Your task to perform on an android device: What's on my calendar tomorrow? Image 0: 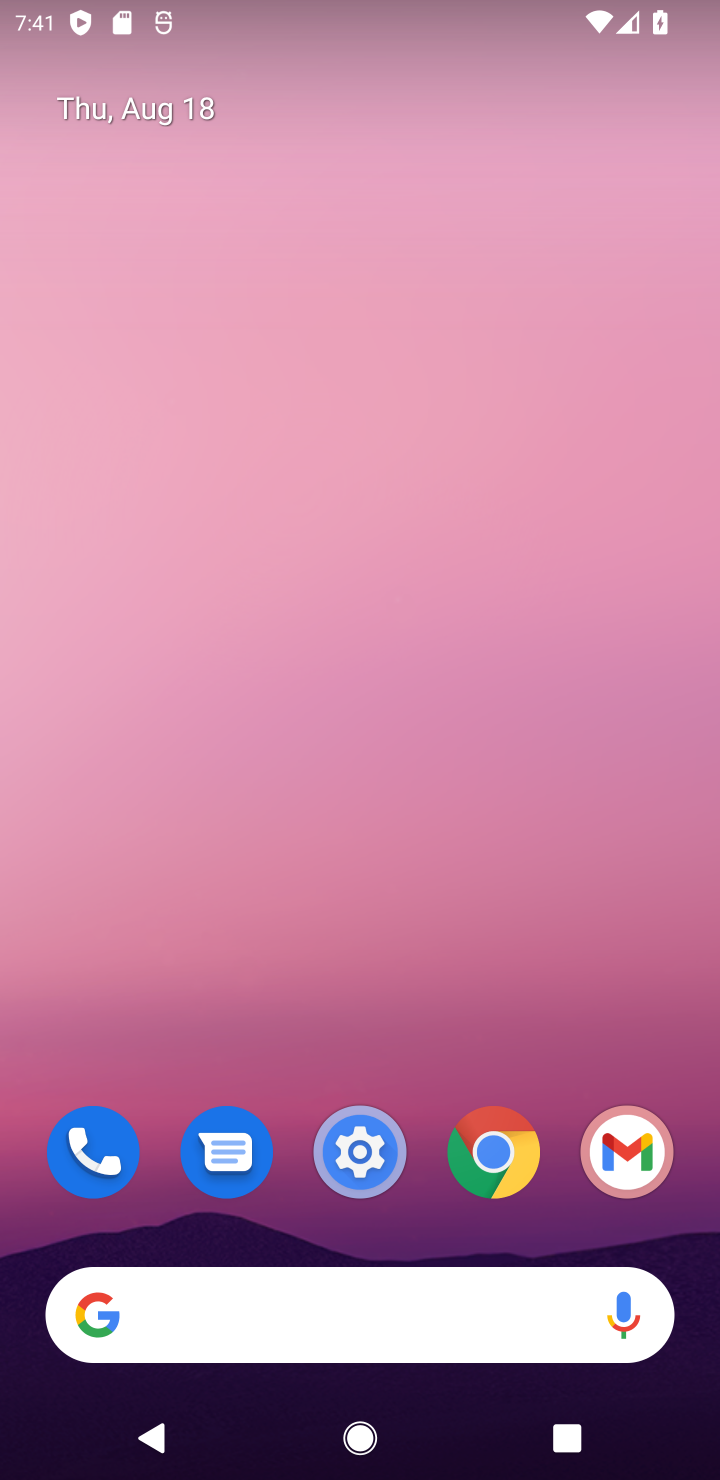
Step 0: press home button
Your task to perform on an android device: What's on my calendar tomorrow? Image 1: 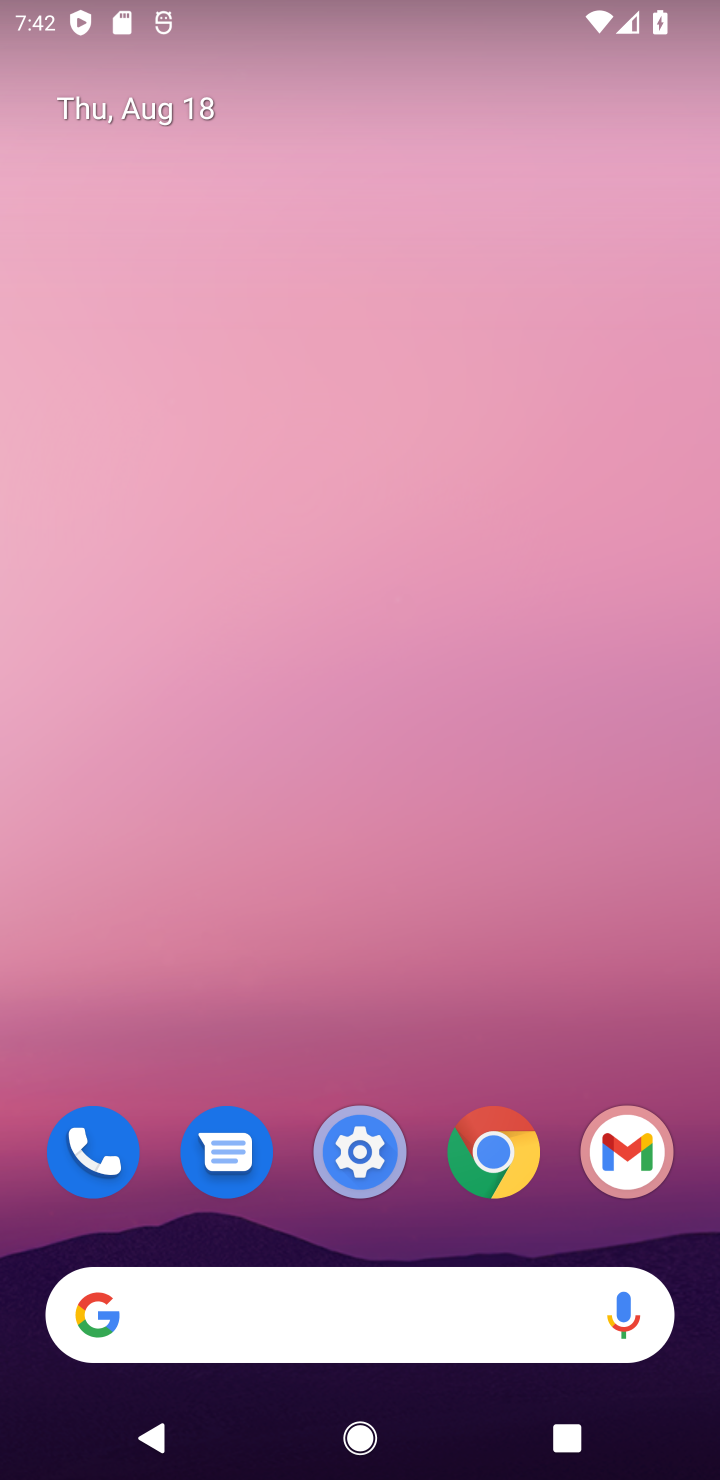
Step 1: drag from (407, 1185) to (584, 81)
Your task to perform on an android device: What's on my calendar tomorrow? Image 2: 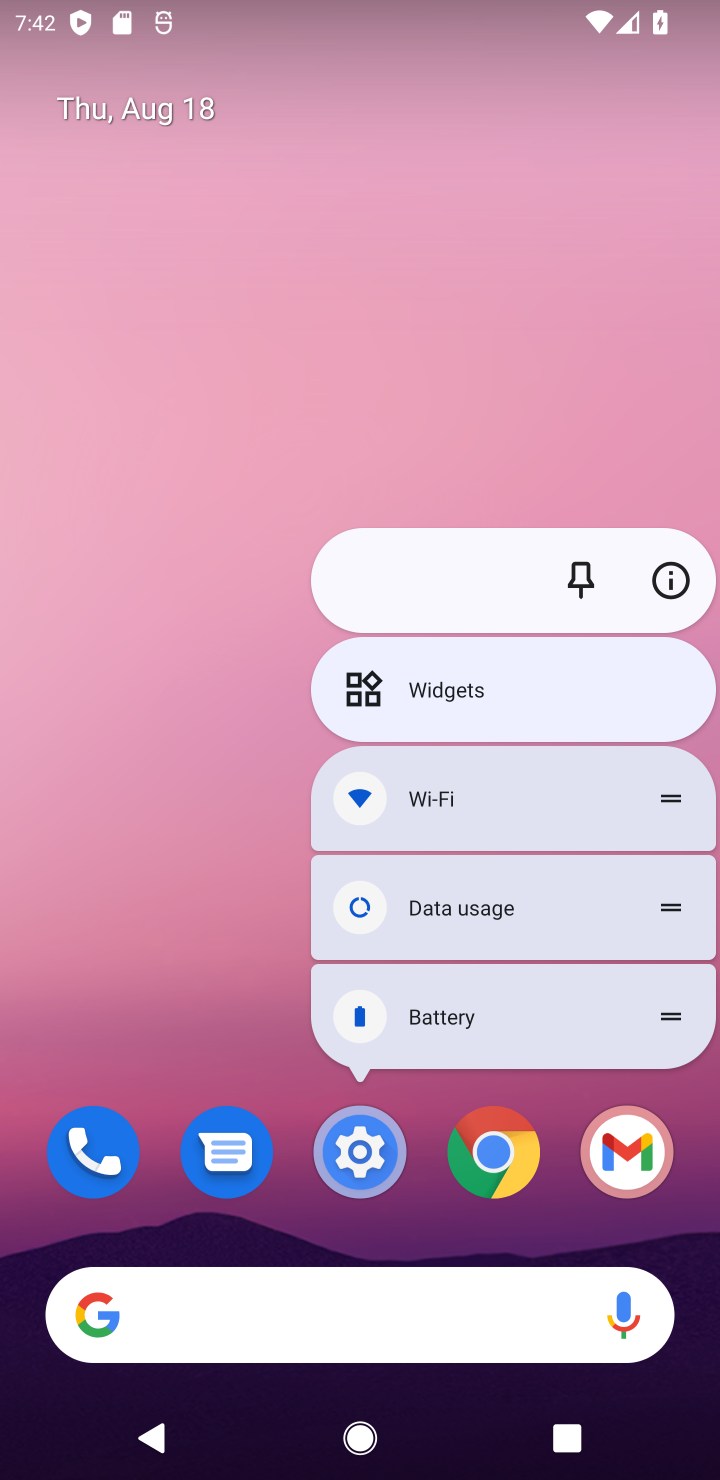
Step 2: click (423, 1212)
Your task to perform on an android device: What's on my calendar tomorrow? Image 3: 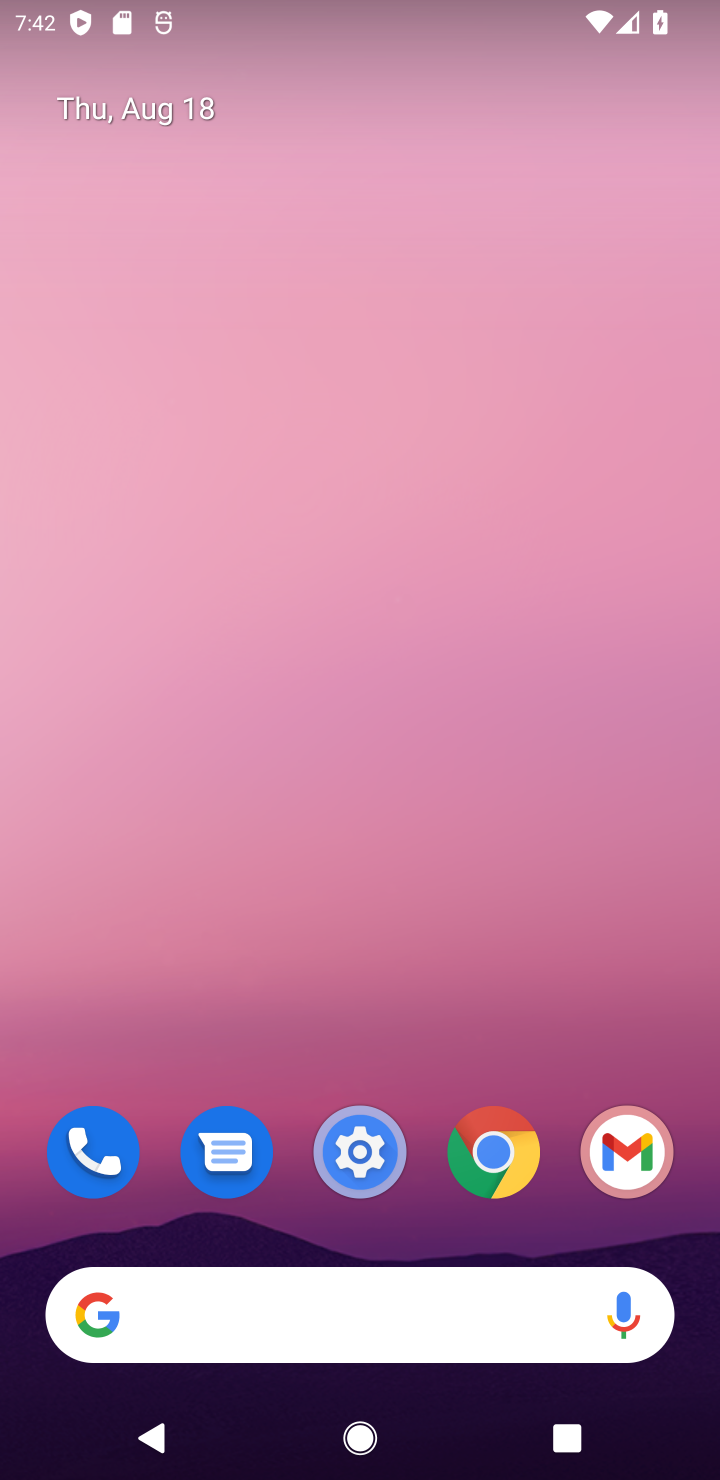
Step 3: drag from (426, 1207) to (502, 22)
Your task to perform on an android device: What's on my calendar tomorrow? Image 4: 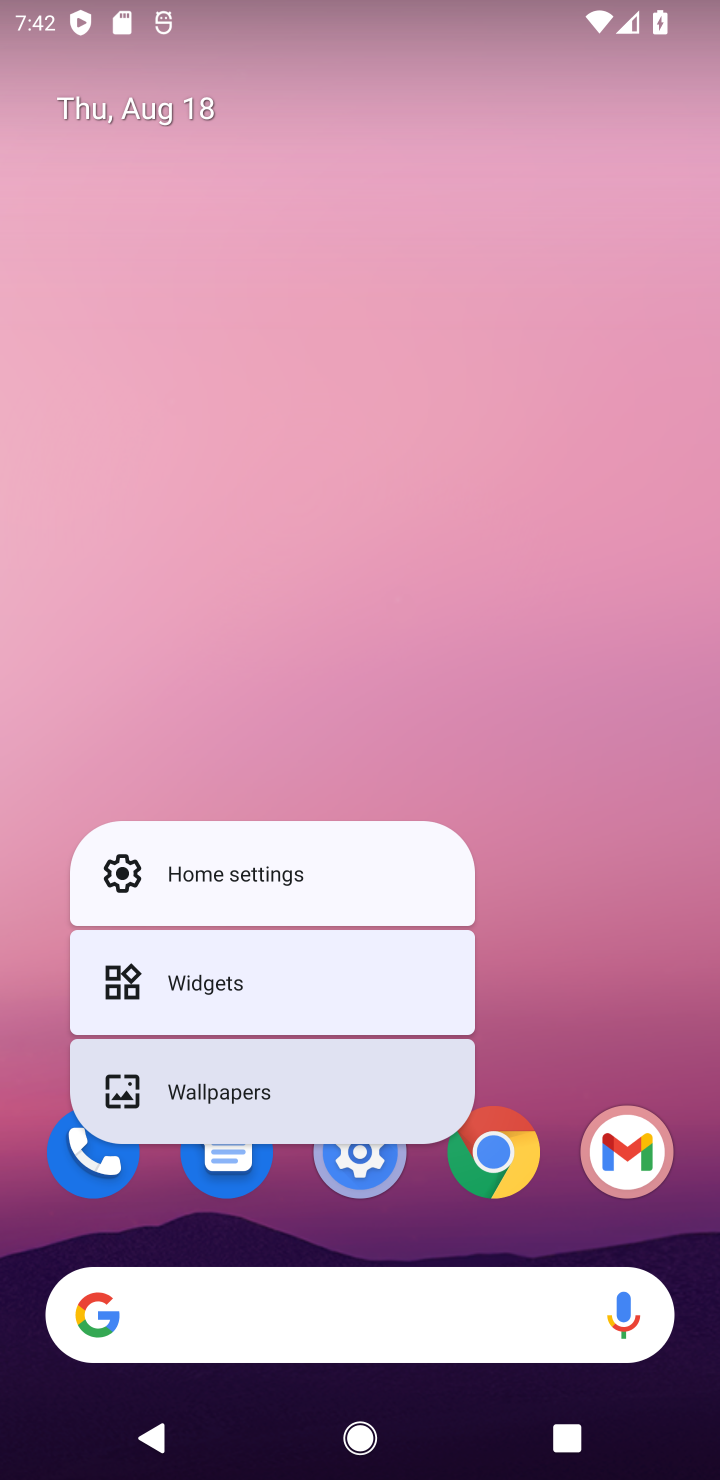
Step 4: click (605, 1232)
Your task to perform on an android device: What's on my calendar tomorrow? Image 5: 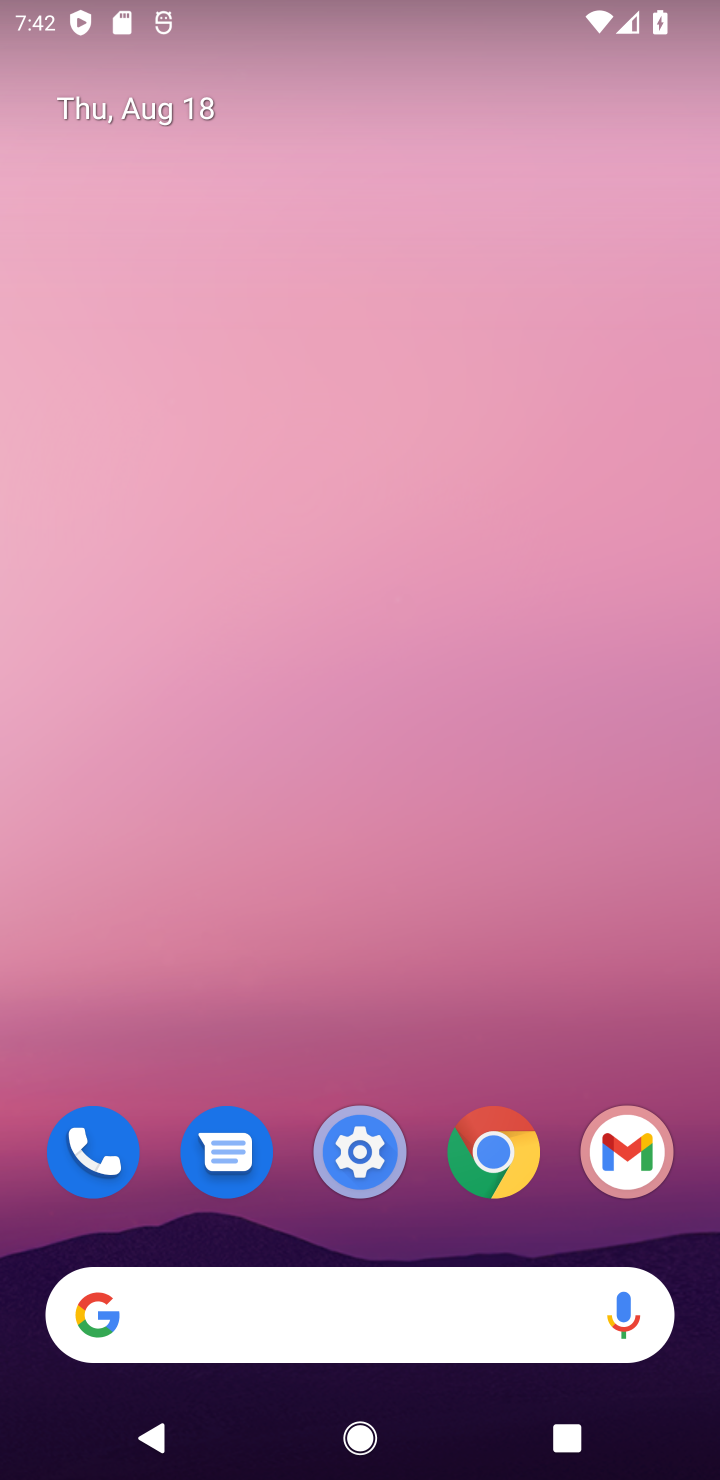
Step 5: drag from (440, 1163) to (517, 94)
Your task to perform on an android device: What's on my calendar tomorrow? Image 6: 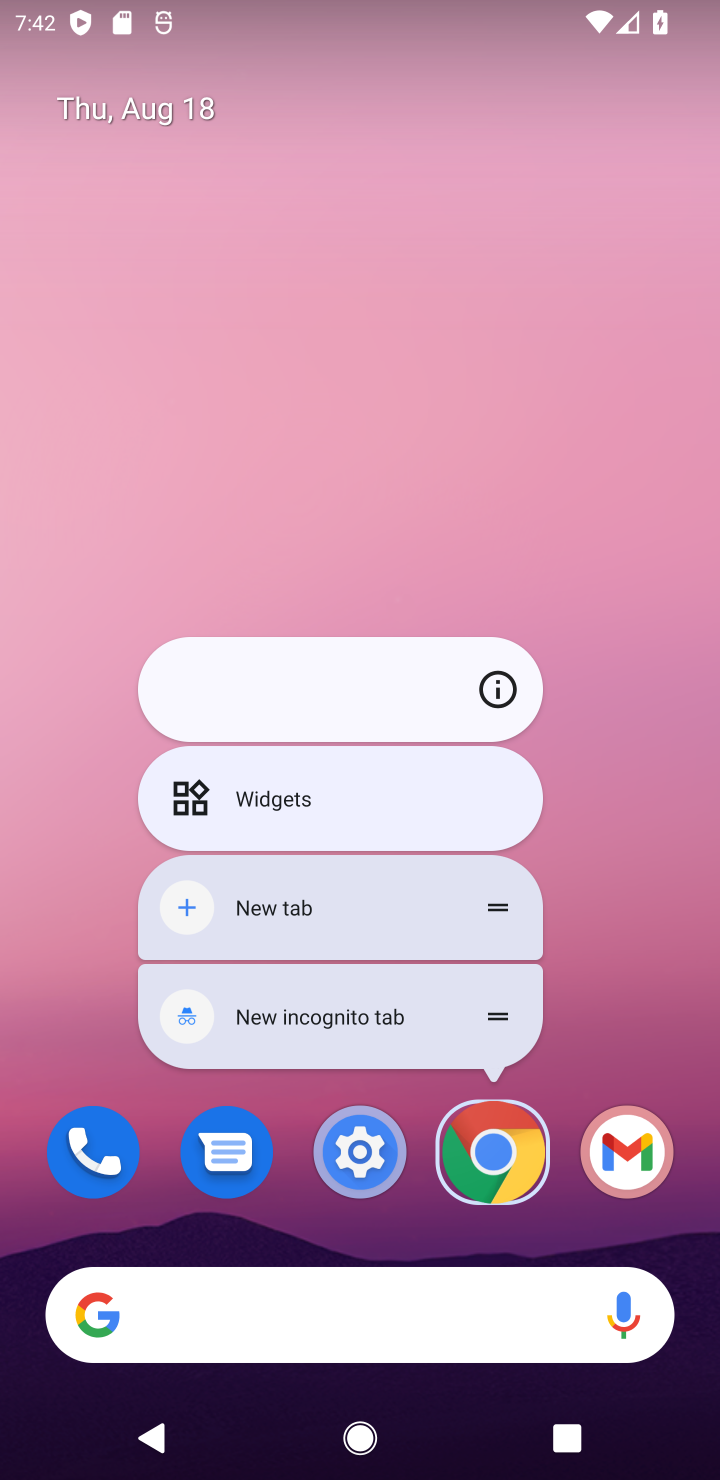
Step 6: click (616, 918)
Your task to perform on an android device: What's on my calendar tomorrow? Image 7: 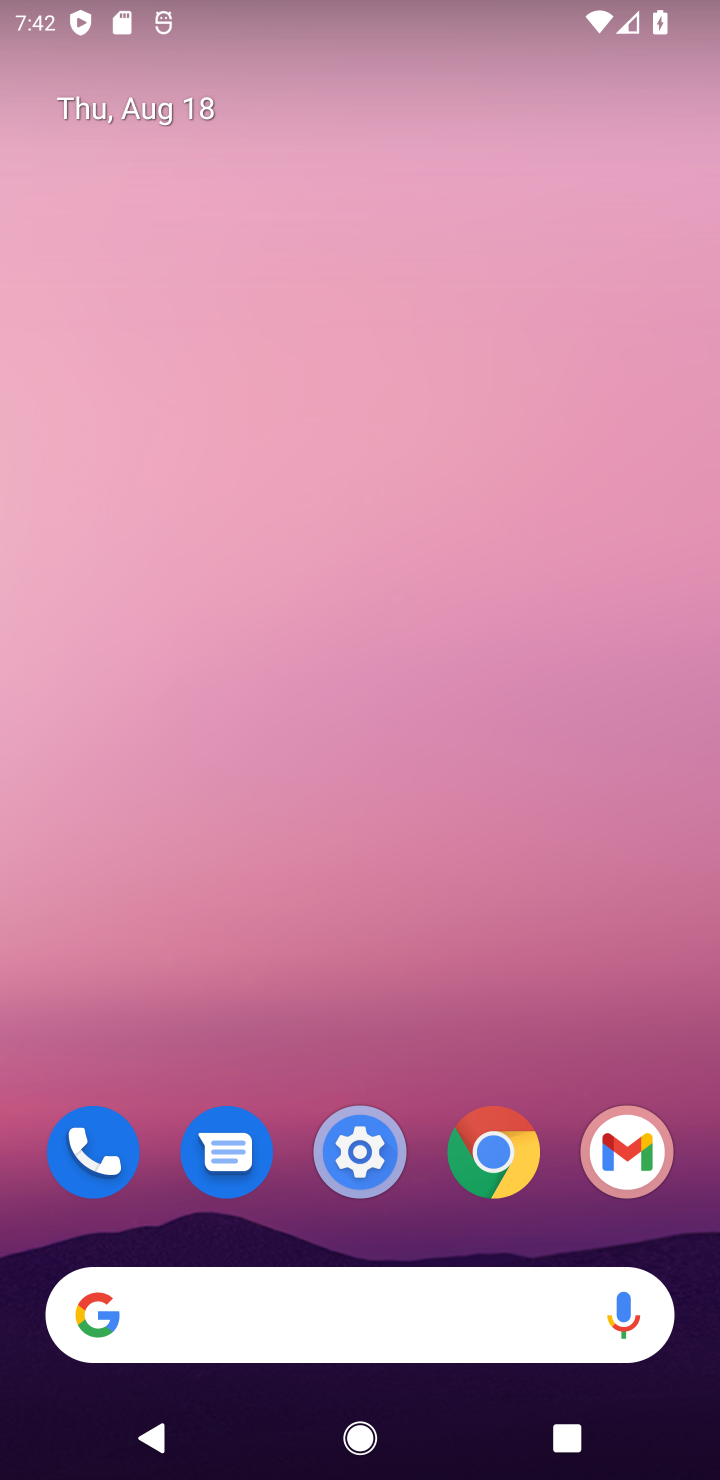
Step 7: drag from (463, 1212) to (641, 0)
Your task to perform on an android device: What's on my calendar tomorrow? Image 8: 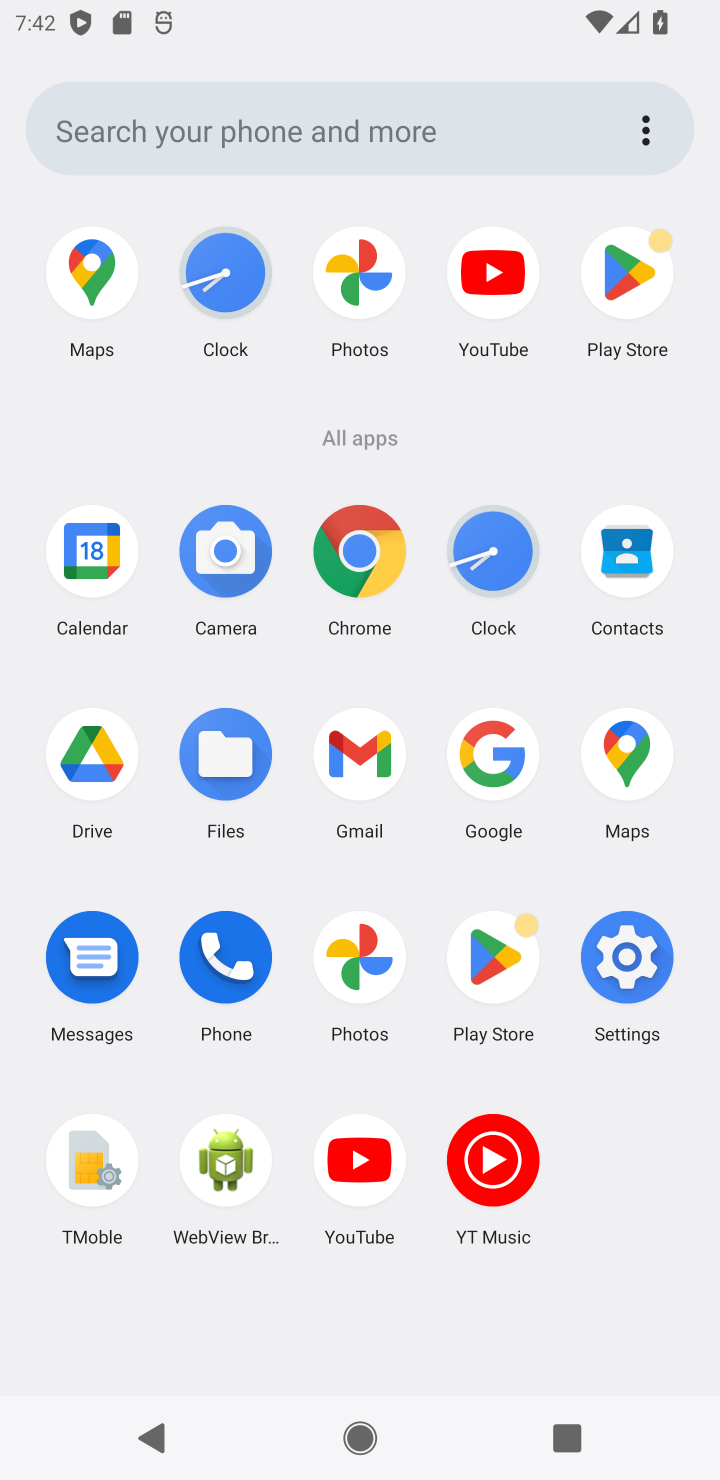
Step 8: click (82, 556)
Your task to perform on an android device: What's on my calendar tomorrow? Image 9: 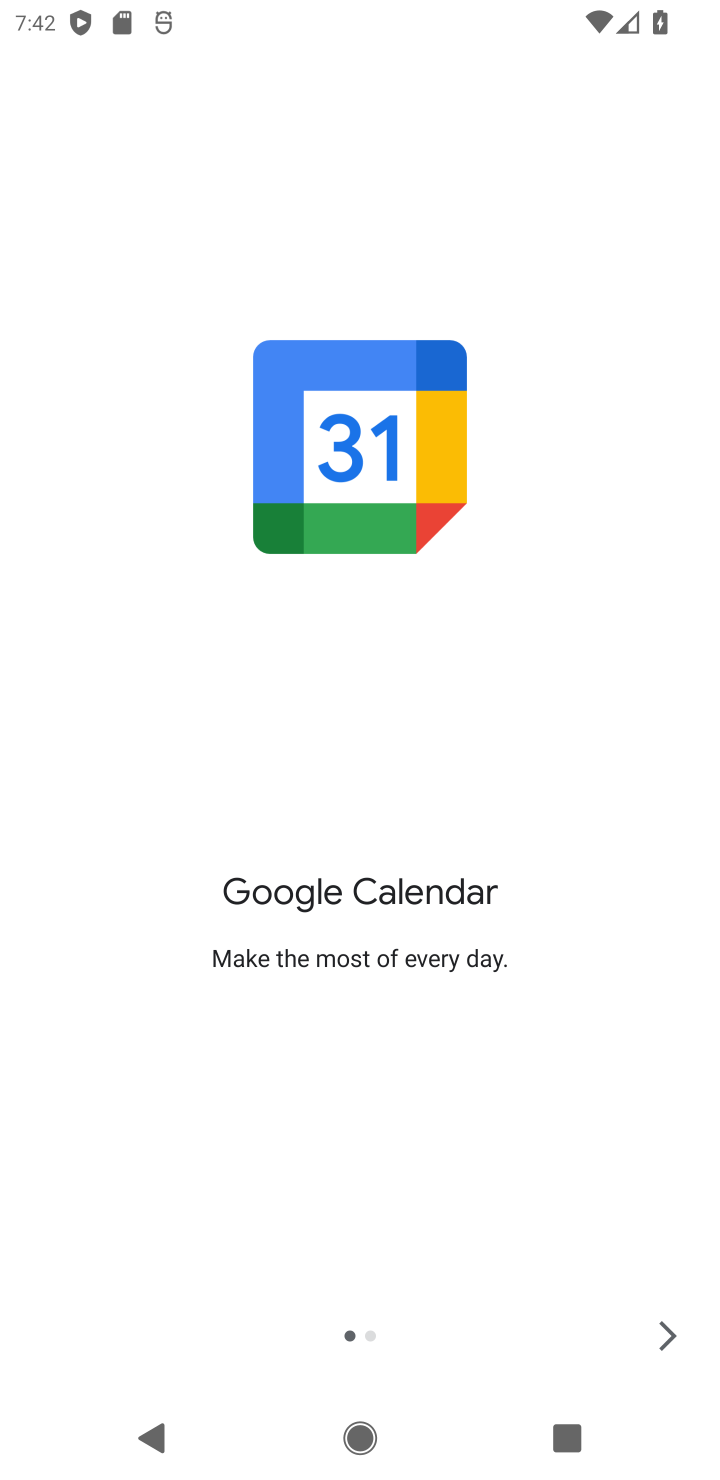
Step 9: click (662, 1333)
Your task to perform on an android device: What's on my calendar tomorrow? Image 10: 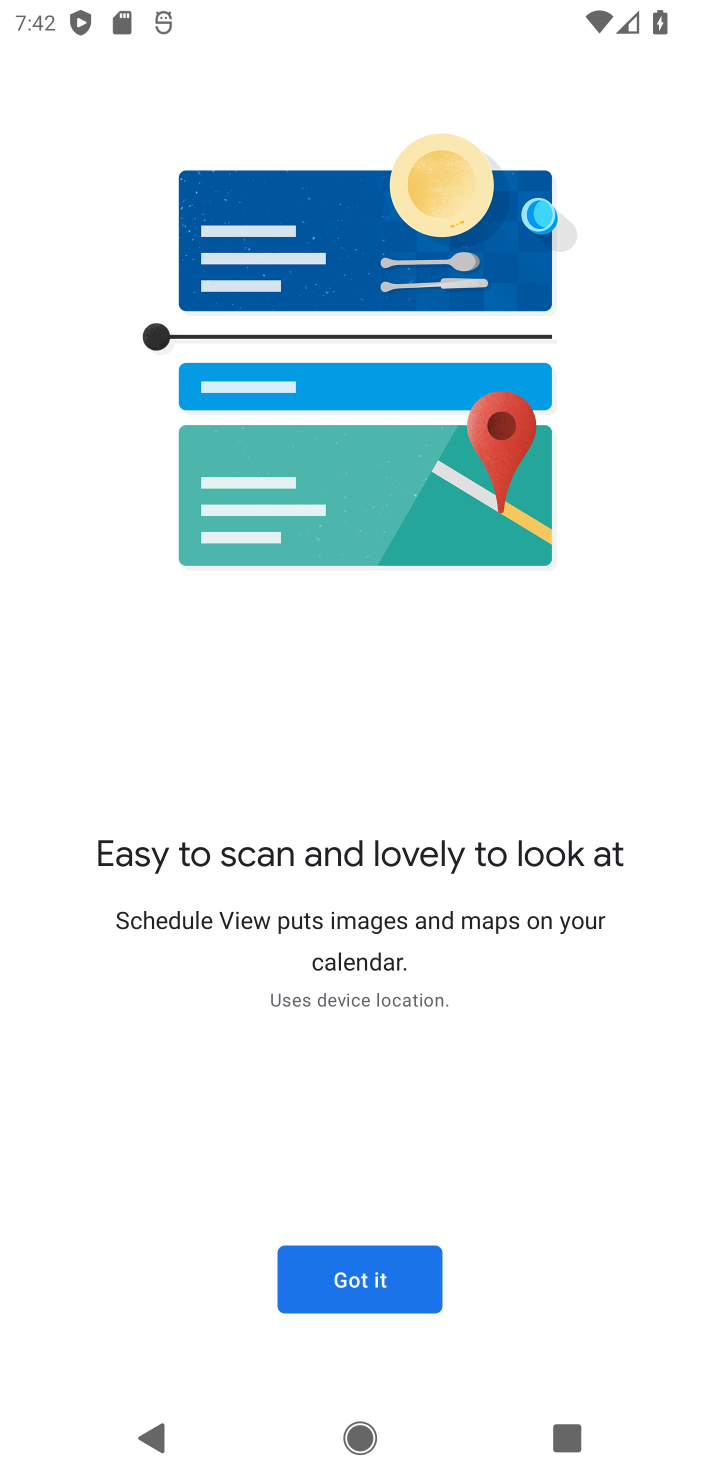
Step 10: click (361, 1252)
Your task to perform on an android device: What's on my calendar tomorrow? Image 11: 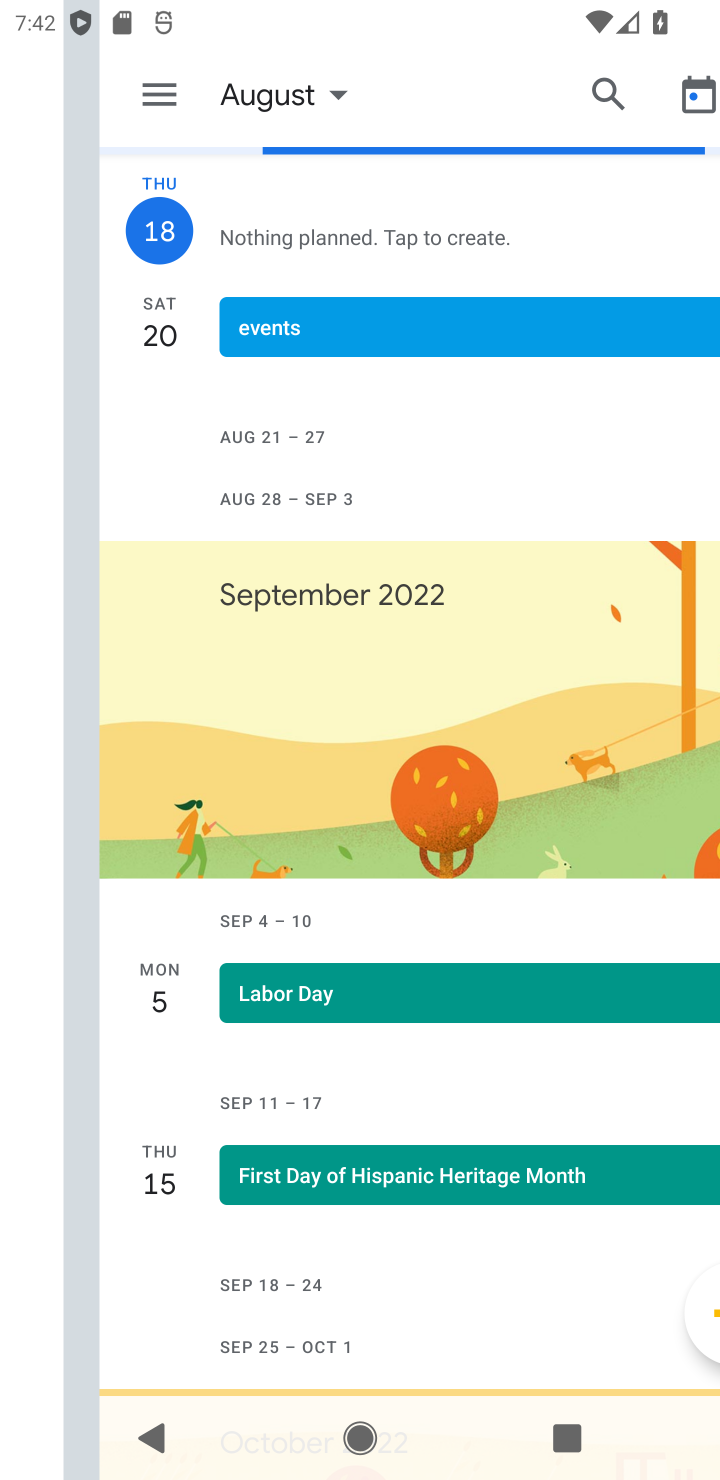
Step 11: click (333, 1296)
Your task to perform on an android device: What's on my calendar tomorrow? Image 12: 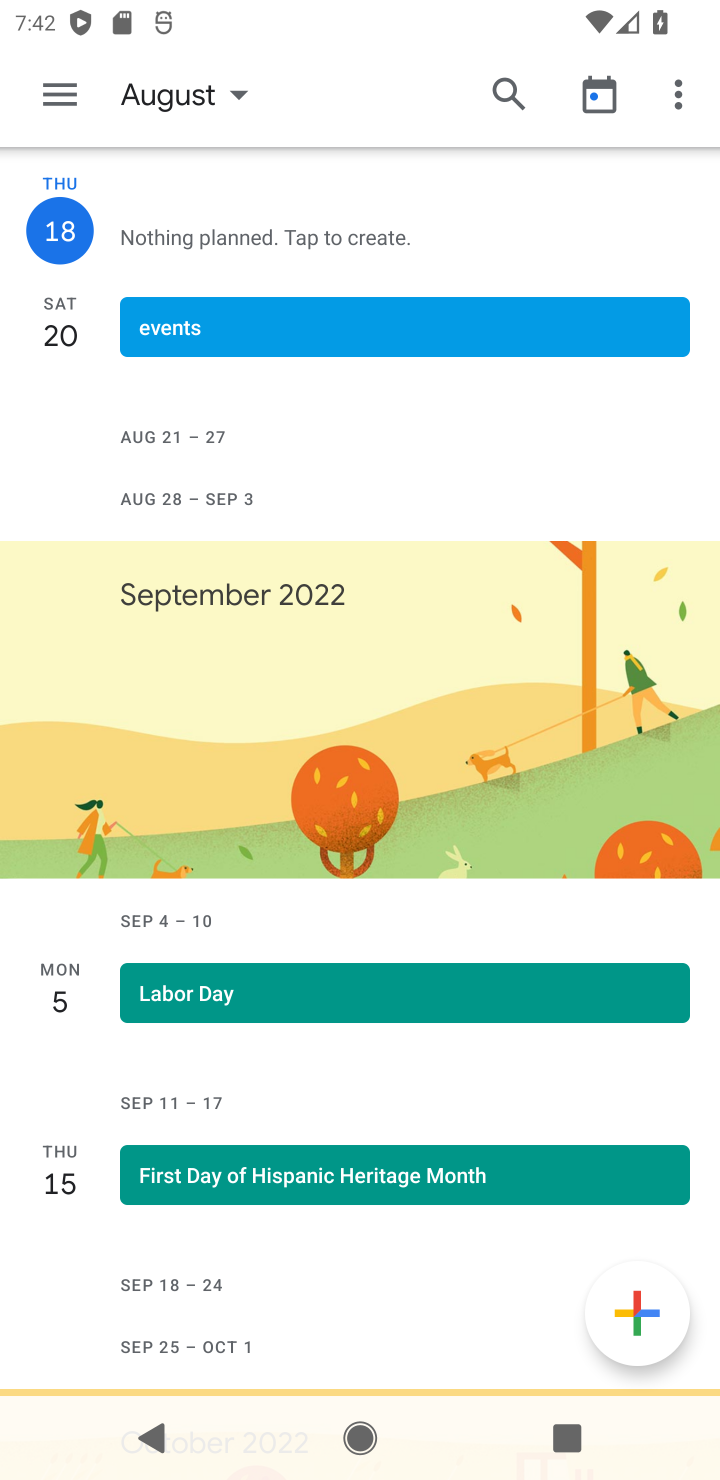
Step 12: click (216, 104)
Your task to perform on an android device: What's on my calendar tomorrow? Image 13: 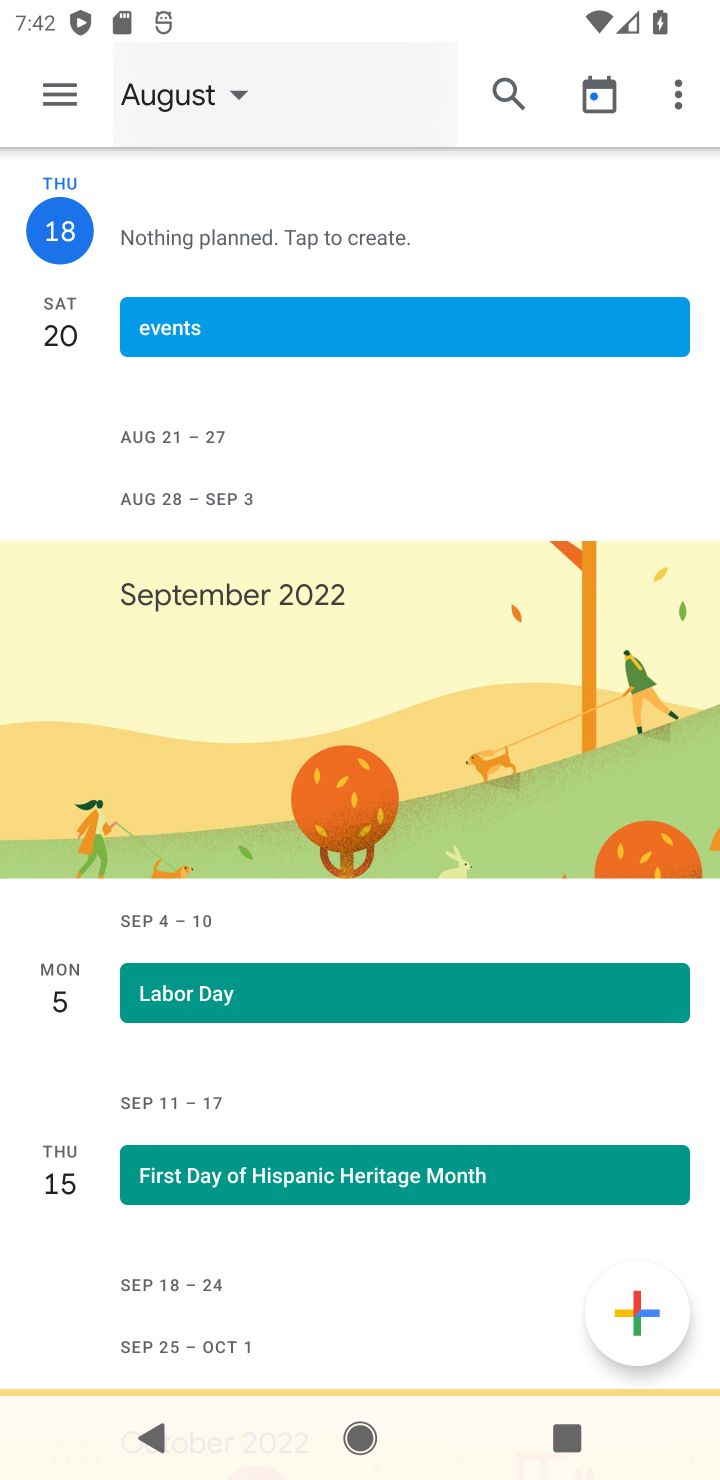
Step 13: click (232, 97)
Your task to perform on an android device: What's on my calendar tomorrow? Image 14: 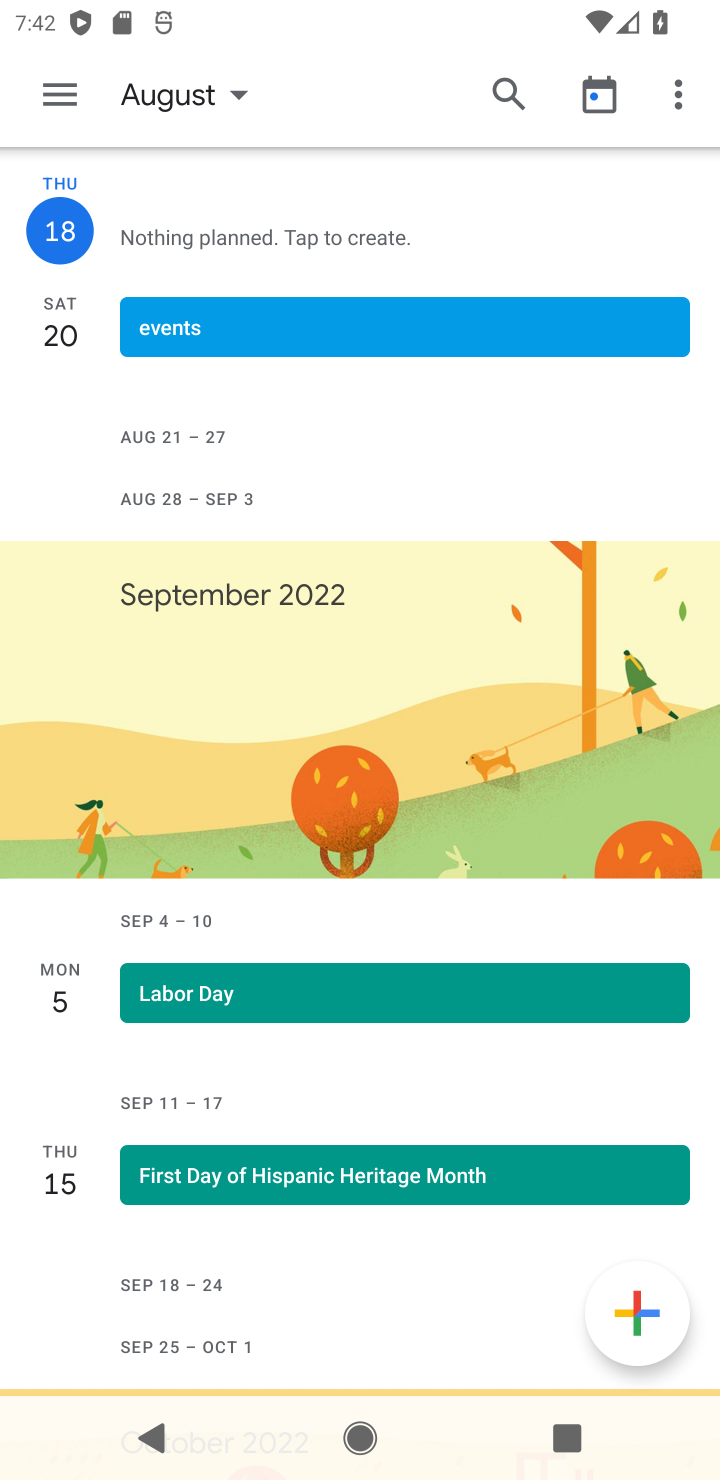
Step 14: click (225, 101)
Your task to perform on an android device: What's on my calendar tomorrow? Image 15: 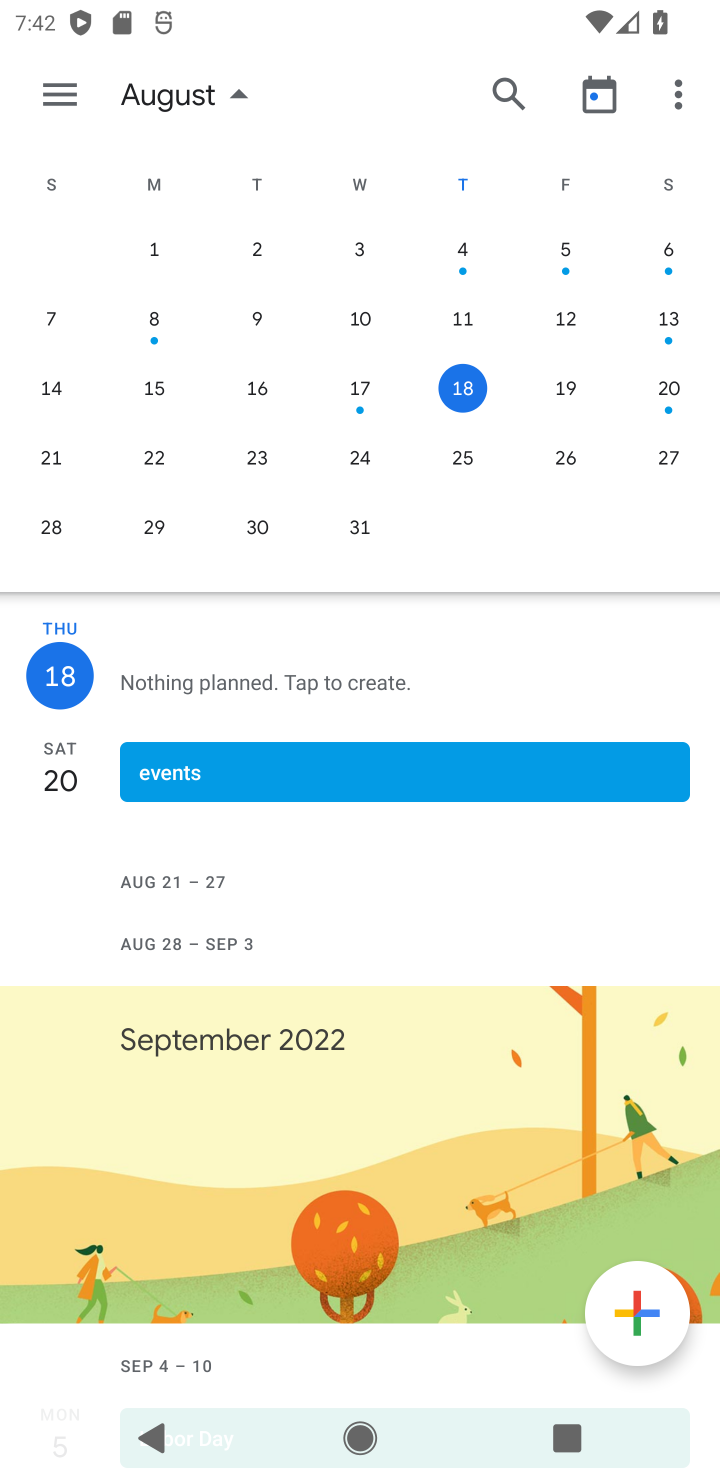
Step 15: click (562, 396)
Your task to perform on an android device: What's on my calendar tomorrow? Image 16: 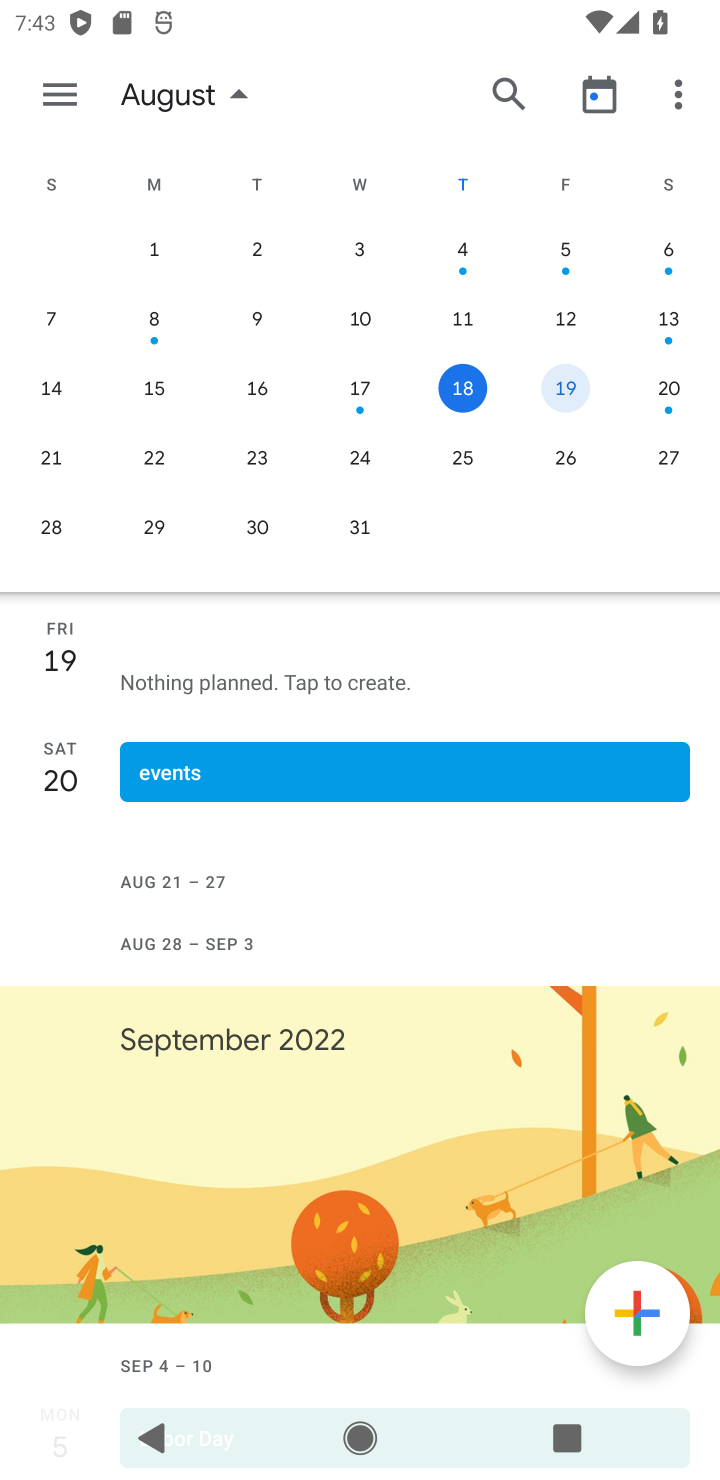
Step 16: task complete